Your task to perform on an android device: See recent photos Image 0: 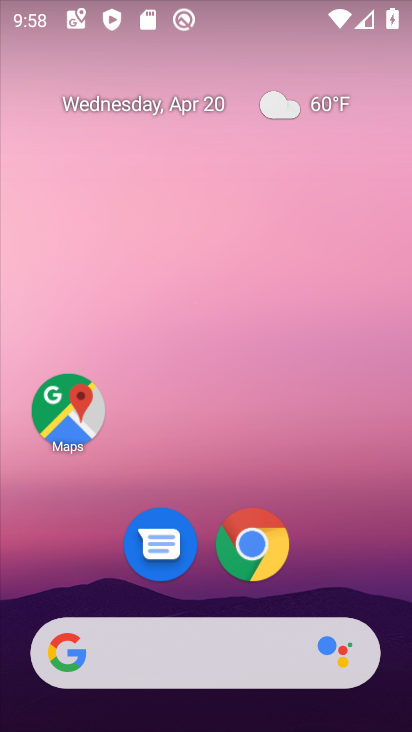
Step 0: drag from (395, 606) to (333, 243)
Your task to perform on an android device: See recent photos Image 1: 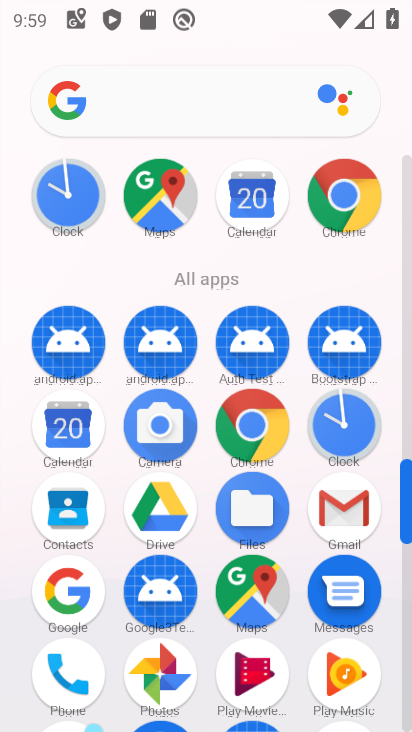
Step 1: click (170, 681)
Your task to perform on an android device: See recent photos Image 2: 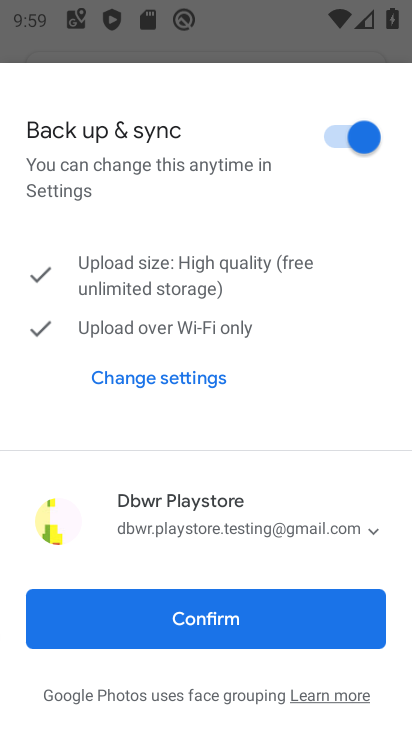
Step 2: click (248, 610)
Your task to perform on an android device: See recent photos Image 3: 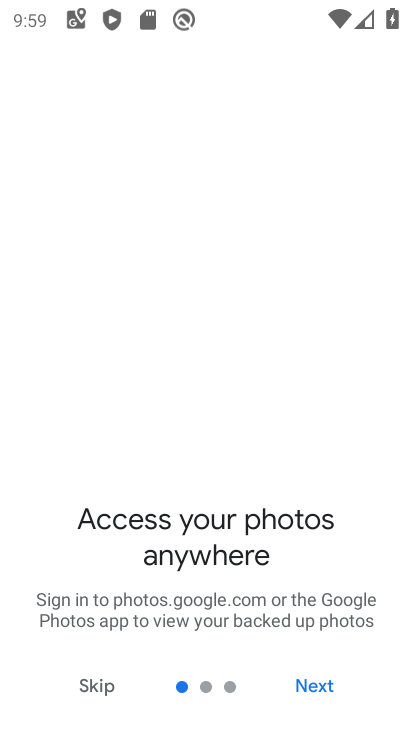
Step 3: click (316, 691)
Your task to perform on an android device: See recent photos Image 4: 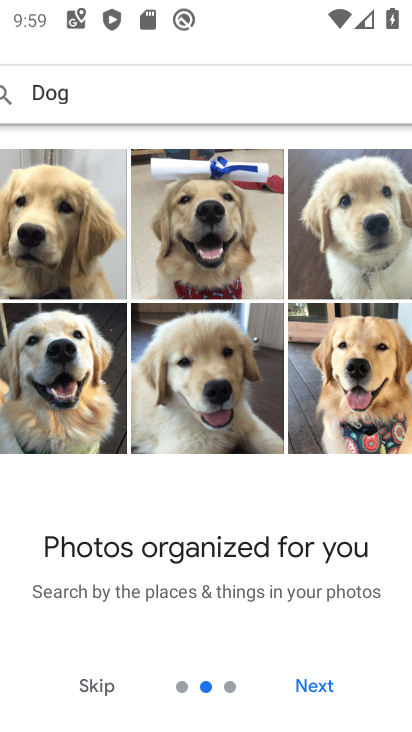
Step 4: click (316, 691)
Your task to perform on an android device: See recent photos Image 5: 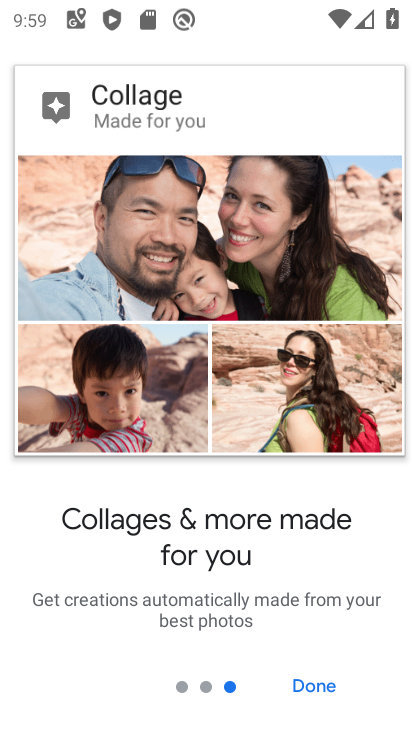
Step 5: click (316, 691)
Your task to perform on an android device: See recent photos Image 6: 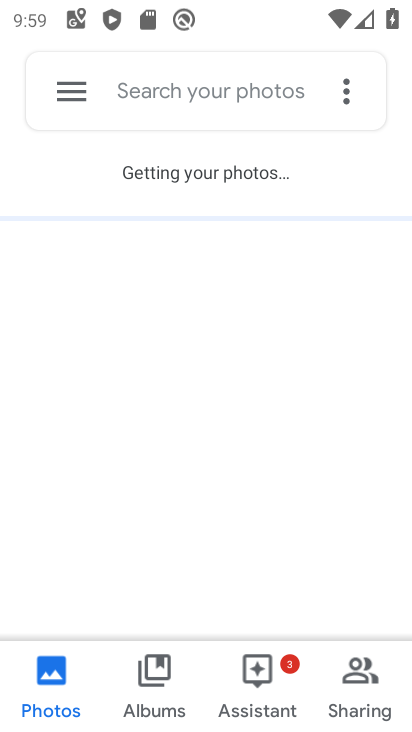
Step 6: task complete